Your task to perform on an android device: What is the news today? Image 0: 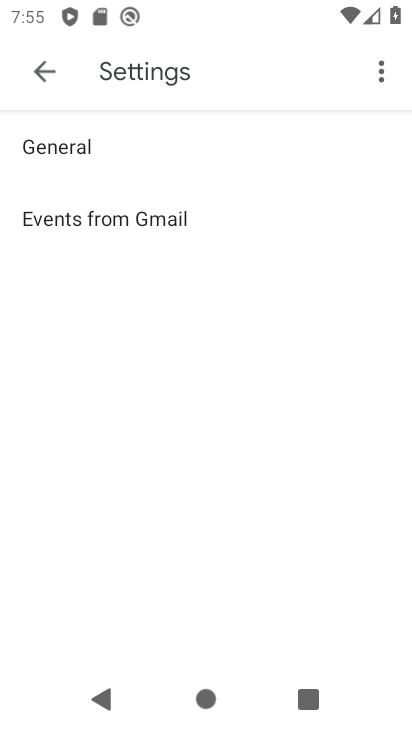
Step 0: press home button
Your task to perform on an android device: What is the news today? Image 1: 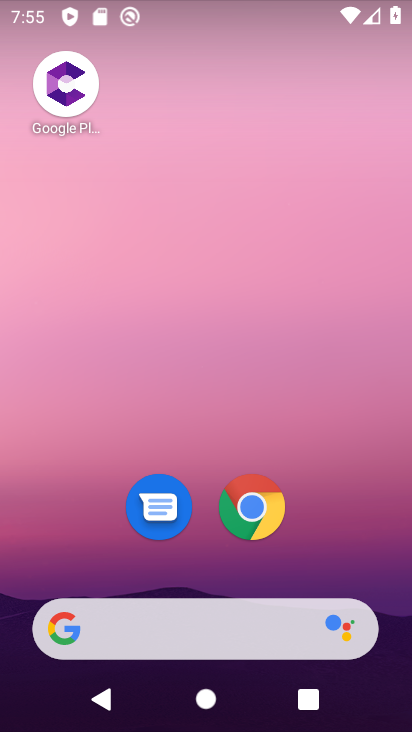
Step 1: click (263, 525)
Your task to perform on an android device: What is the news today? Image 2: 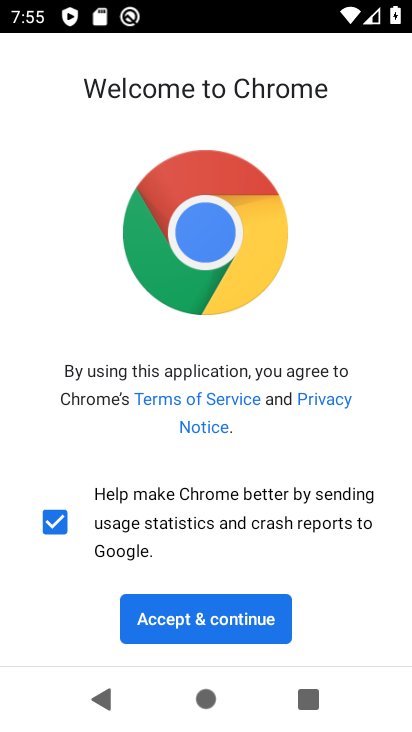
Step 2: click (204, 618)
Your task to perform on an android device: What is the news today? Image 3: 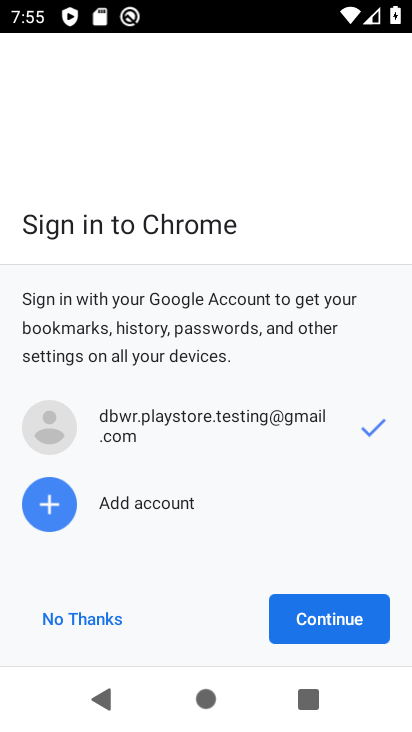
Step 3: click (330, 616)
Your task to perform on an android device: What is the news today? Image 4: 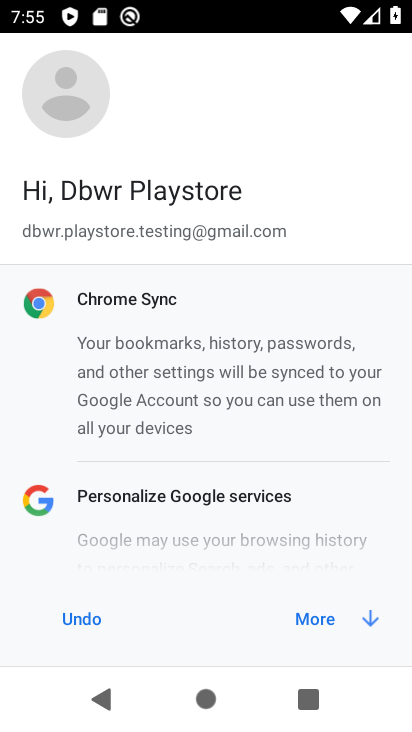
Step 4: click (336, 617)
Your task to perform on an android device: What is the news today? Image 5: 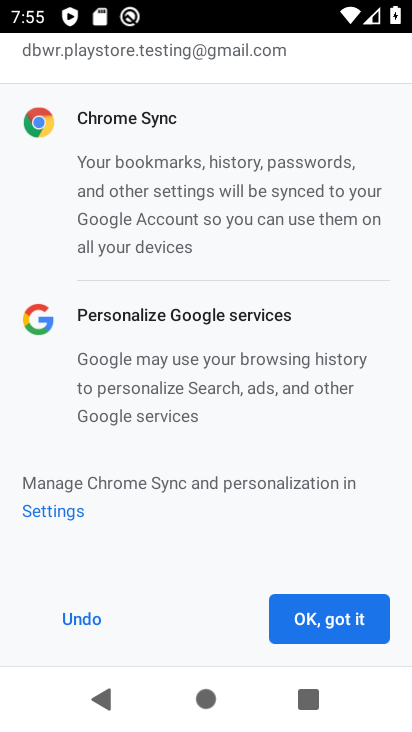
Step 5: click (336, 617)
Your task to perform on an android device: What is the news today? Image 6: 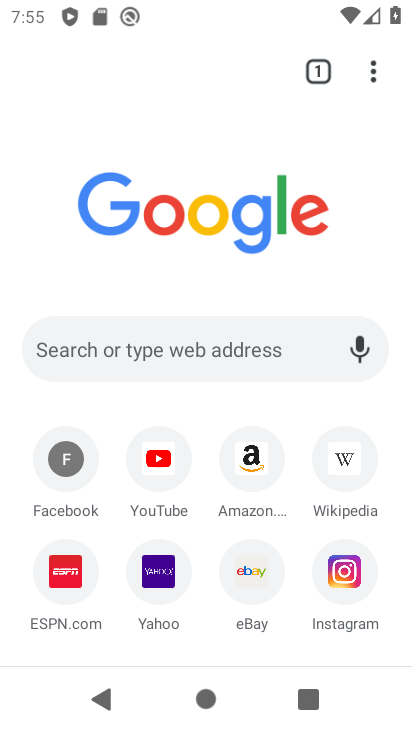
Step 6: click (165, 344)
Your task to perform on an android device: What is the news today? Image 7: 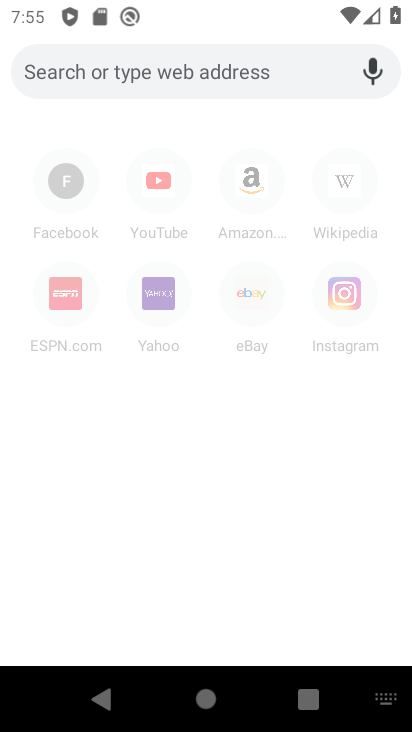
Step 7: type "What is the news today?"
Your task to perform on an android device: What is the news today? Image 8: 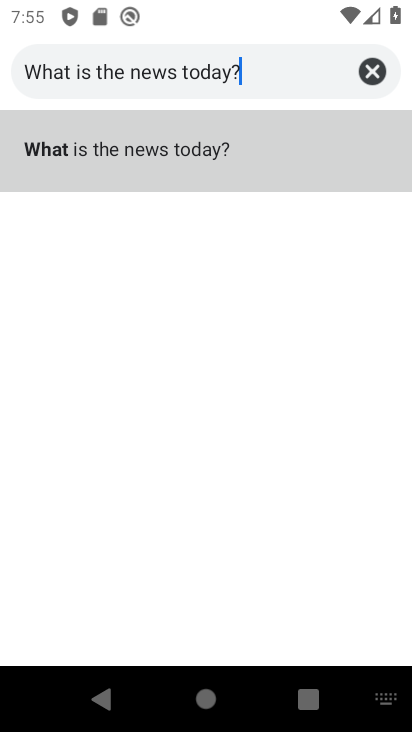
Step 8: click (149, 146)
Your task to perform on an android device: What is the news today? Image 9: 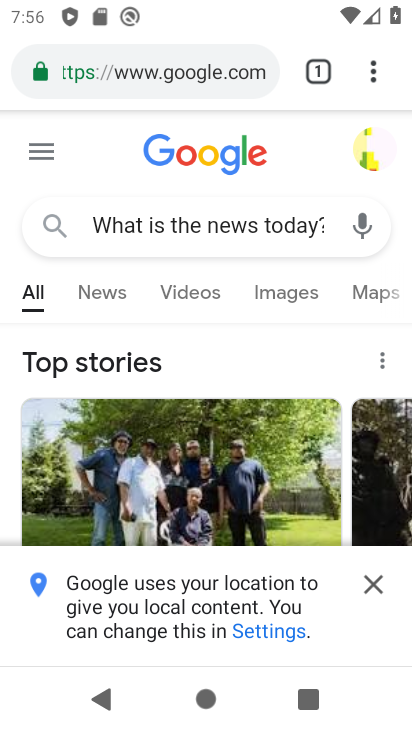
Step 9: click (122, 294)
Your task to perform on an android device: What is the news today? Image 10: 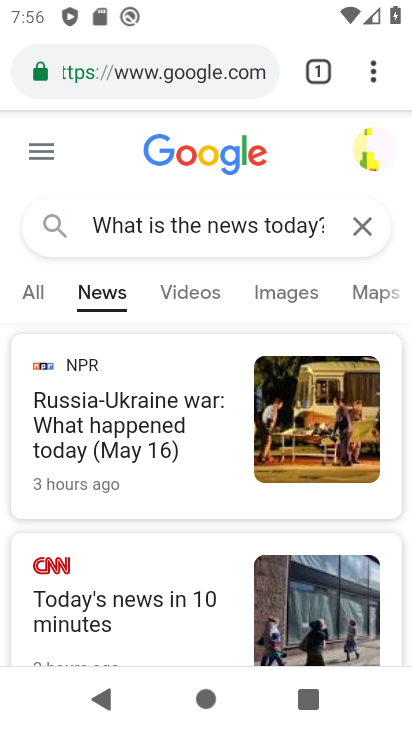
Step 10: task complete